Your task to perform on an android device: toggle improve location accuracy Image 0: 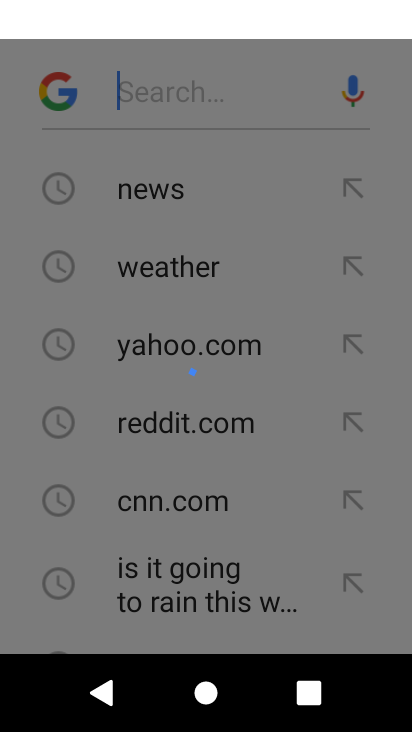
Step 0: press back button
Your task to perform on an android device: toggle improve location accuracy Image 1: 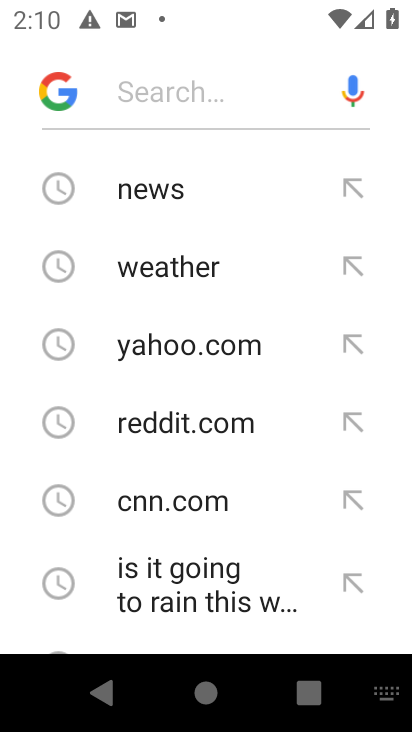
Step 1: press back button
Your task to perform on an android device: toggle improve location accuracy Image 2: 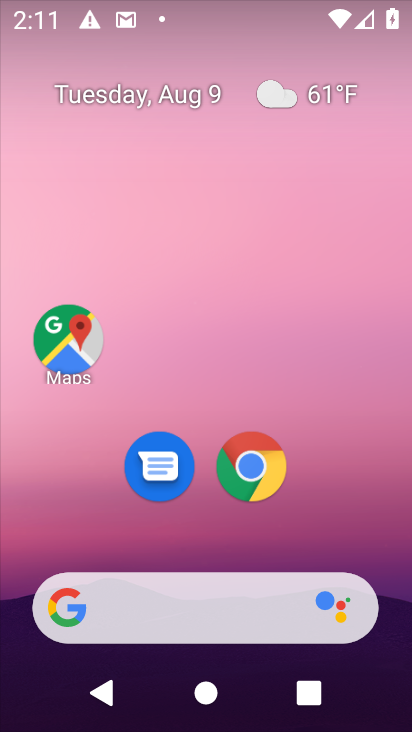
Step 2: drag from (180, 510) to (289, 72)
Your task to perform on an android device: toggle improve location accuracy Image 3: 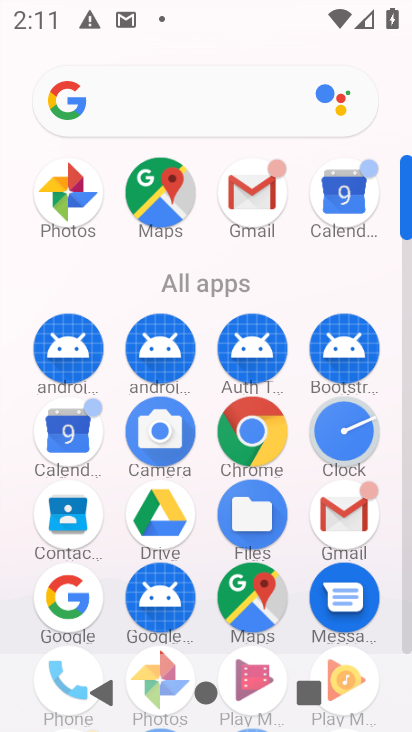
Step 3: drag from (172, 422) to (271, 51)
Your task to perform on an android device: toggle improve location accuracy Image 4: 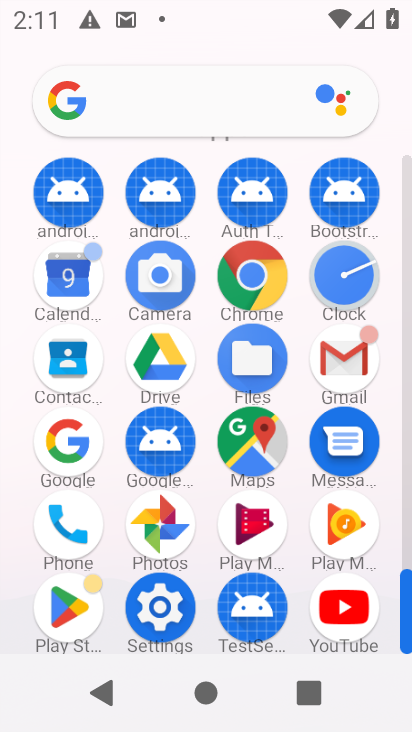
Step 4: click (149, 611)
Your task to perform on an android device: toggle improve location accuracy Image 5: 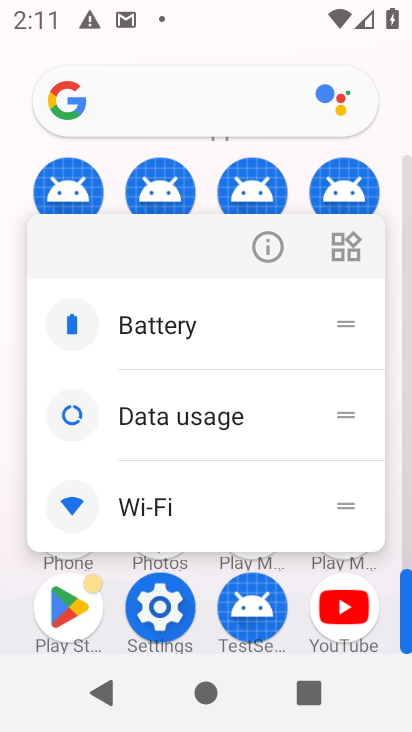
Step 5: click (167, 606)
Your task to perform on an android device: toggle improve location accuracy Image 6: 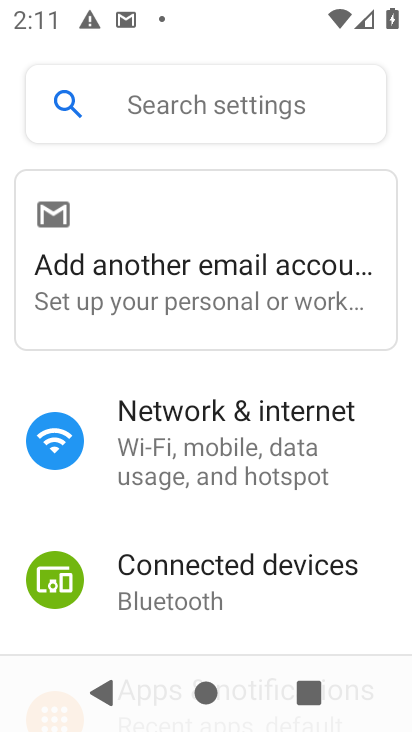
Step 6: drag from (278, 337) to (344, 29)
Your task to perform on an android device: toggle improve location accuracy Image 7: 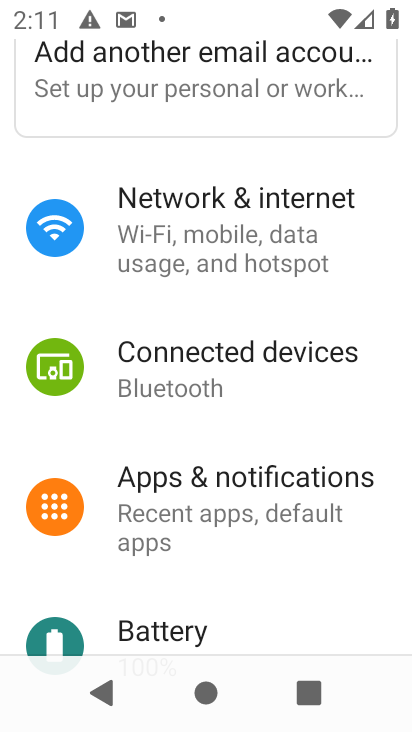
Step 7: drag from (226, 425) to (295, 142)
Your task to perform on an android device: toggle improve location accuracy Image 8: 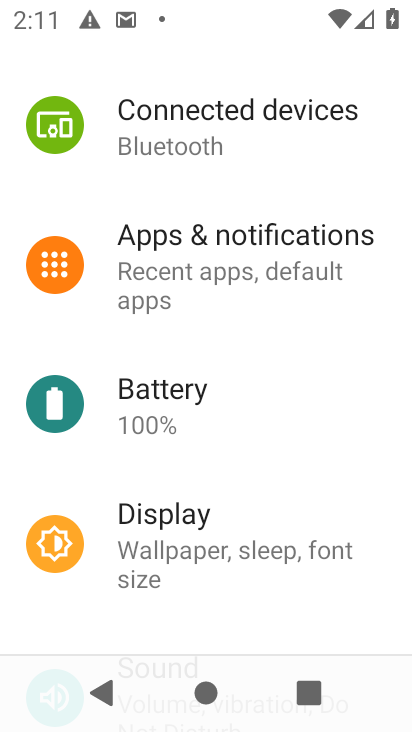
Step 8: drag from (237, 515) to (311, 208)
Your task to perform on an android device: toggle improve location accuracy Image 9: 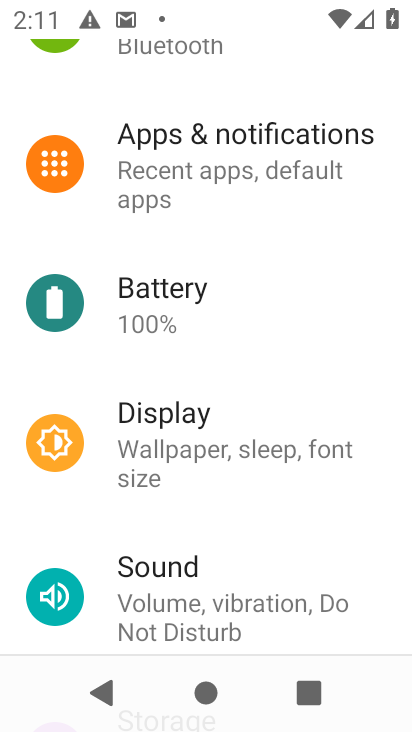
Step 9: drag from (199, 562) to (298, 112)
Your task to perform on an android device: toggle improve location accuracy Image 10: 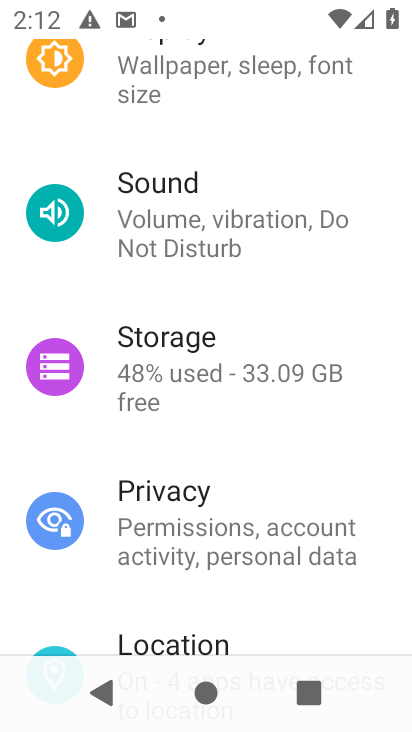
Step 10: click (202, 645)
Your task to perform on an android device: toggle improve location accuracy Image 11: 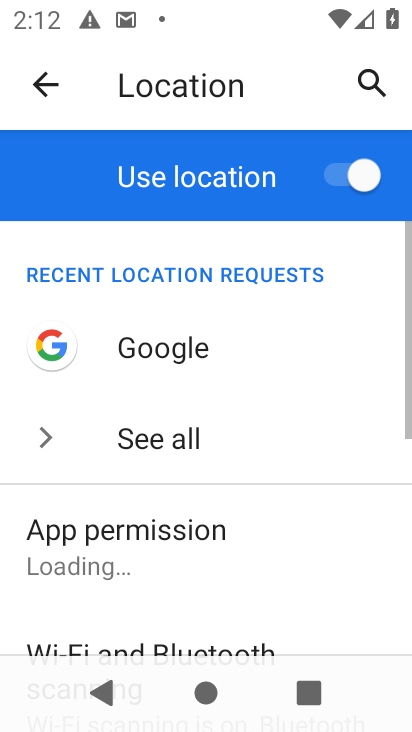
Step 11: drag from (208, 584) to (270, 117)
Your task to perform on an android device: toggle improve location accuracy Image 12: 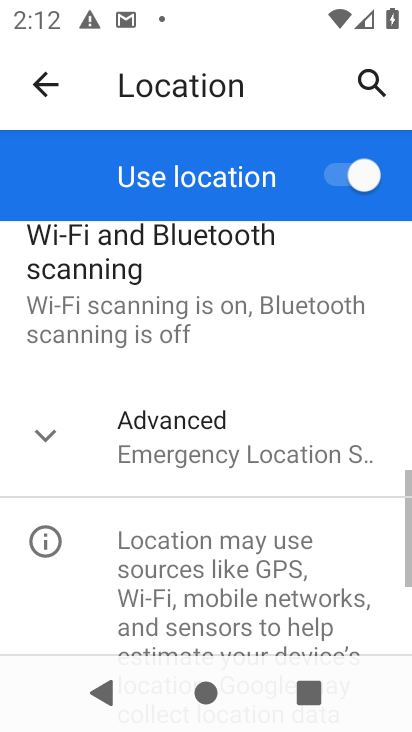
Step 12: click (170, 433)
Your task to perform on an android device: toggle improve location accuracy Image 13: 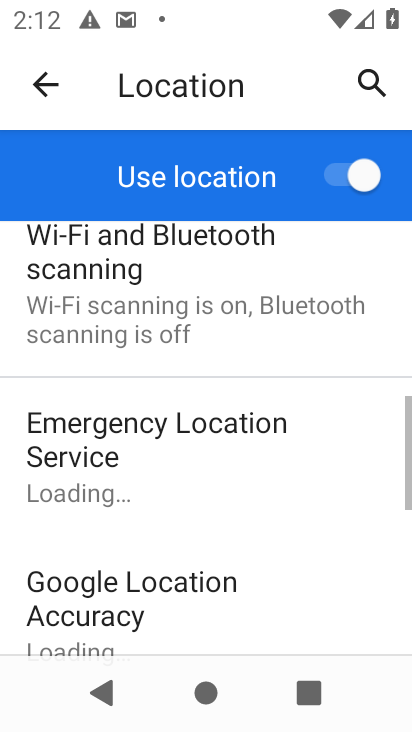
Step 13: click (114, 622)
Your task to perform on an android device: toggle improve location accuracy Image 14: 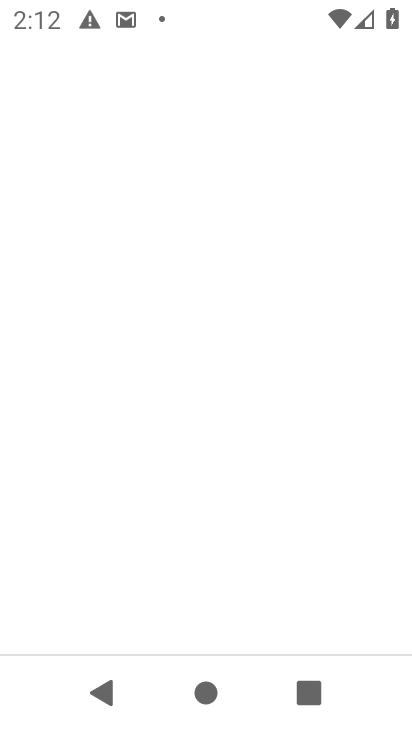
Step 14: task complete